Your task to perform on an android device: Go to internet settings Image 0: 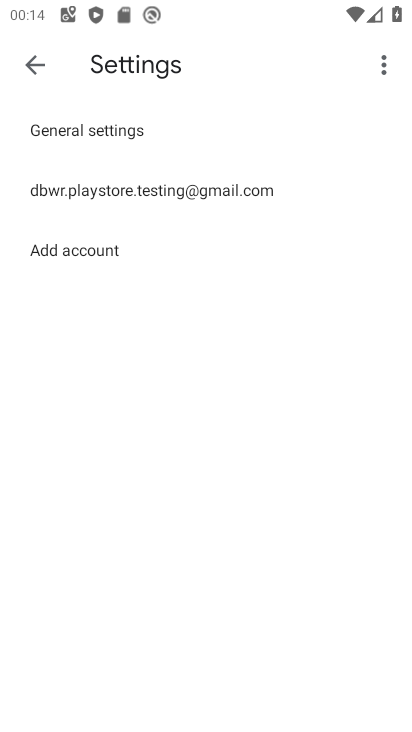
Step 0: press home button
Your task to perform on an android device: Go to internet settings Image 1: 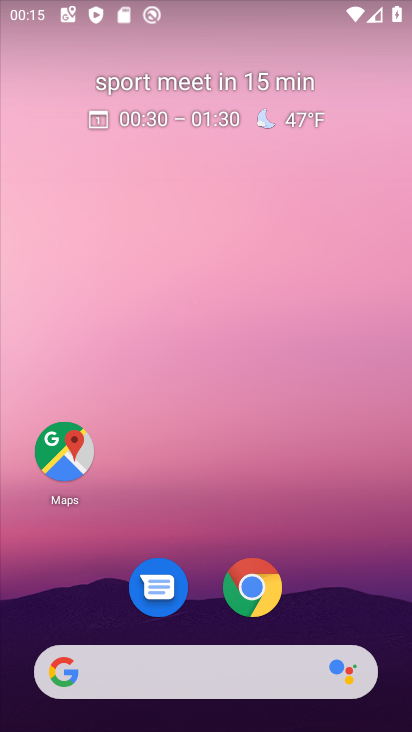
Step 1: drag from (387, 400) to (376, 195)
Your task to perform on an android device: Go to internet settings Image 2: 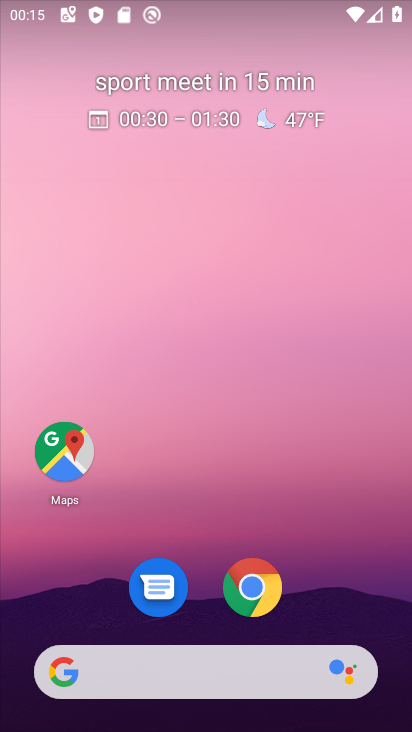
Step 2: drag from (395, 691) to (332, 79)
Your task to perform on an android device: Go to internet settings Image 3: 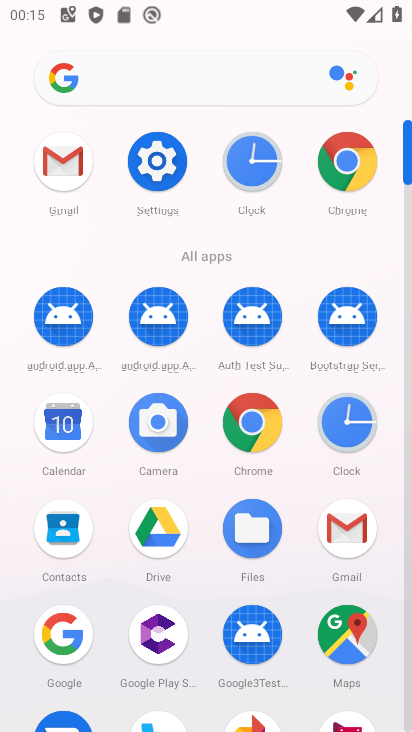
Step 3: click (165, 164)
Your task to perform on an android device: Go to internet settings Image 4: 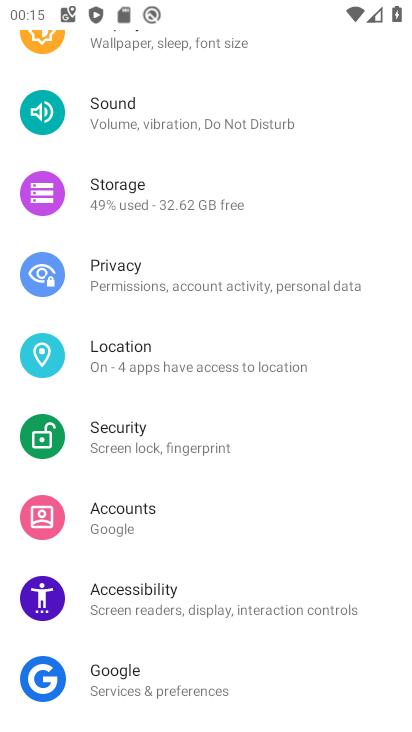
Step 4: drag from (369, 116) to (363, 500)
Your task to perform on an android device: Go to internet settings Image 5: 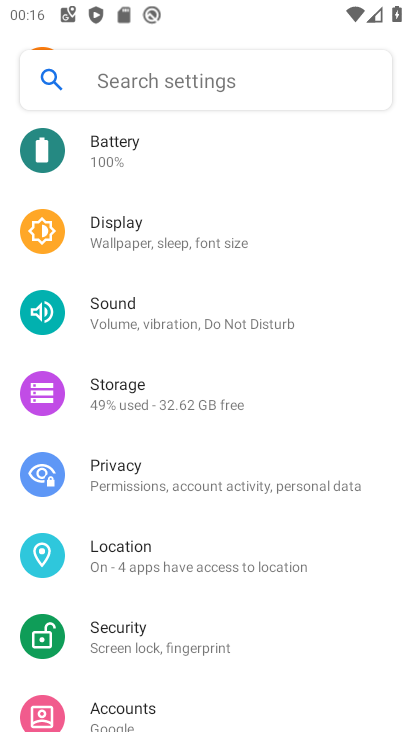
Step 5: drag from (371, 224) to (381, 571)
Your task to perform on an android device: Go to internet settings Image 6: 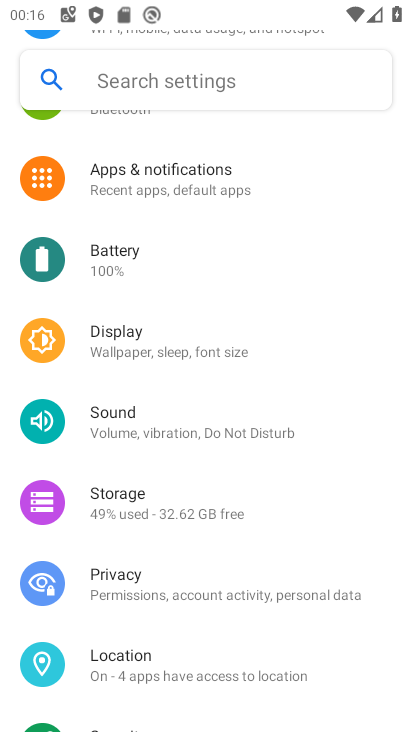
Step 6: drag from (354, 189) to (369, 582)
Your task to perform on an android device: Go to internet settings Image 7: 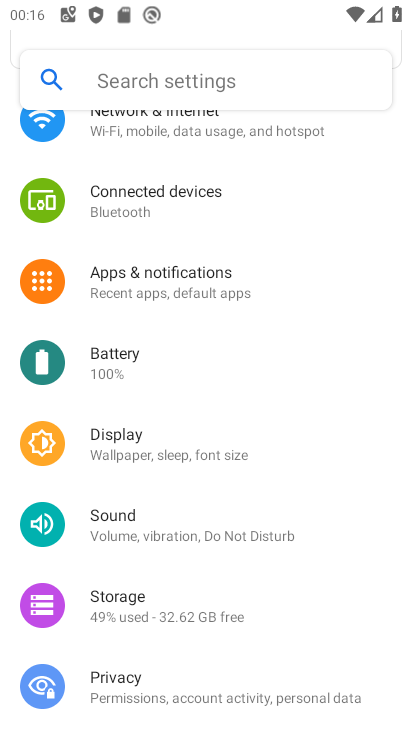
Step 7: drag from (365, 191) to (379, 581)
Your task to perform on an android device: Go to internet settings Image 8: 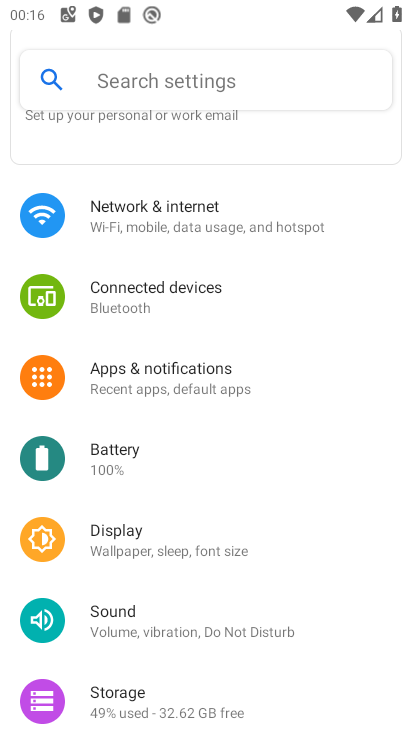
Step 8: click (136, 218)
Your task to perform on an android device: Go to internet settings Image 9: 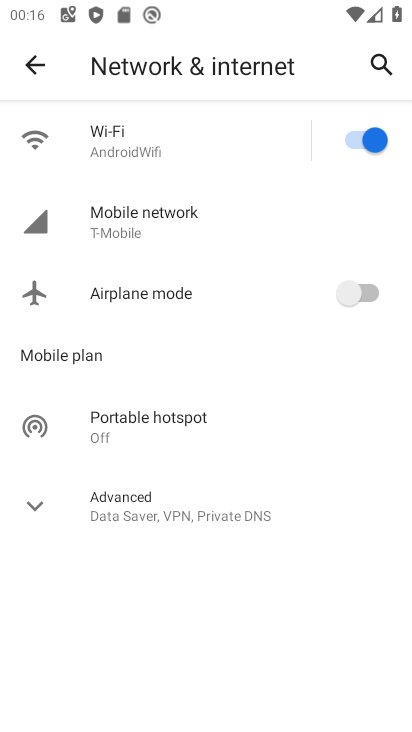
Step 9: click (118, 219)
Your task to perform on an android device: Go to internet settings Image 10: 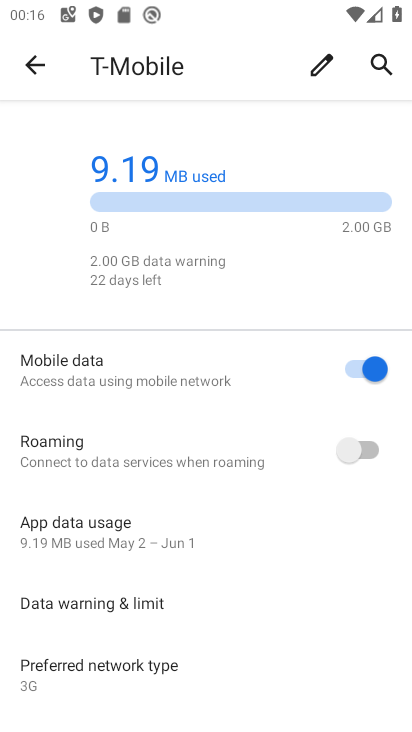
Step 10: task complete